Your task to perform on an android device: turn on data saver in the chrome app Image 0: 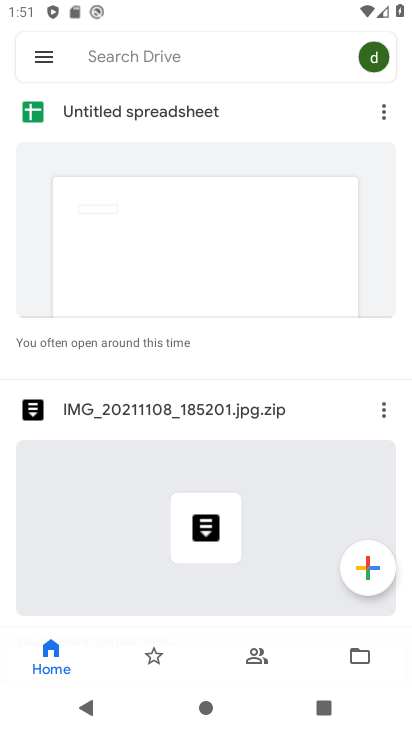
Step 0: press home button
Your task to perform on an android device: turn on data saver in the chrome app Image 1: 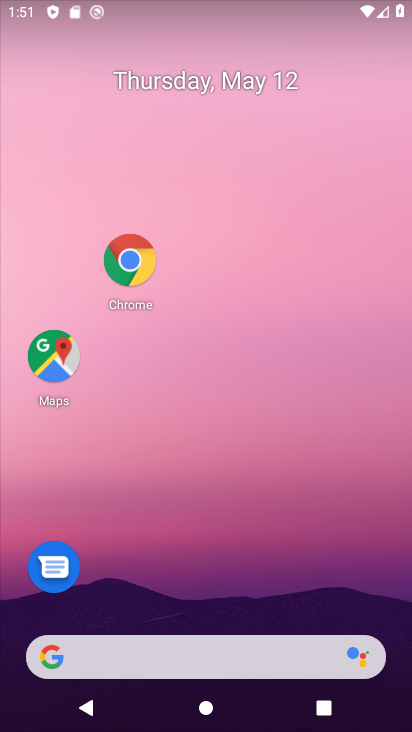
Step 1: drag from (131, 628) to (181, 233)
Your task to perform on an android device: turn on data saver in the chrome app Image 2: 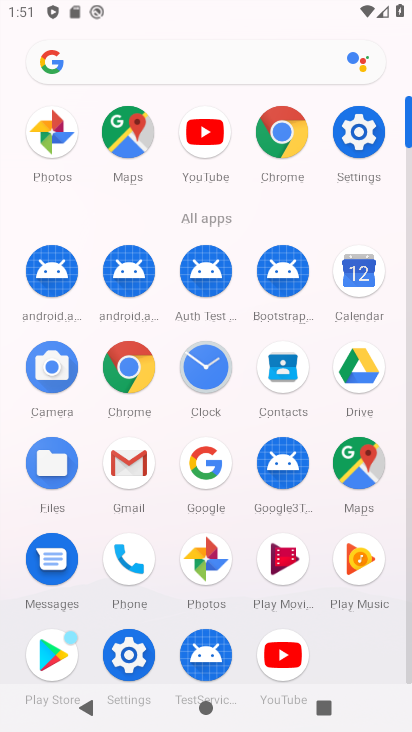
Step 2: click (206, 373)
Your task to perform on an android device: turn on data saver in the chrome app Image 3: 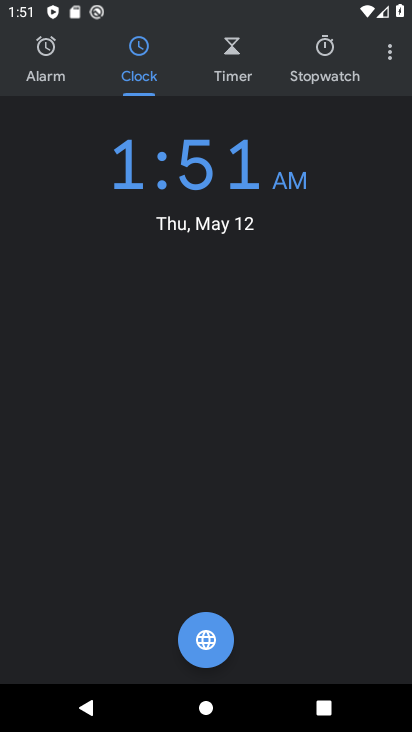
Step 3: click (322, 52)
Your task to perform on an android device: turn on data saver in the chrome app Image 4: 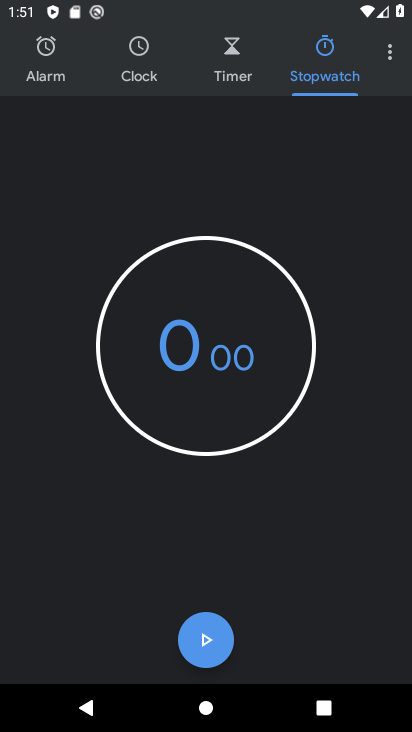
Step 4: click (178, 639)
Your task to perform on an android device: turn on data saver in the chrome app Image 5: 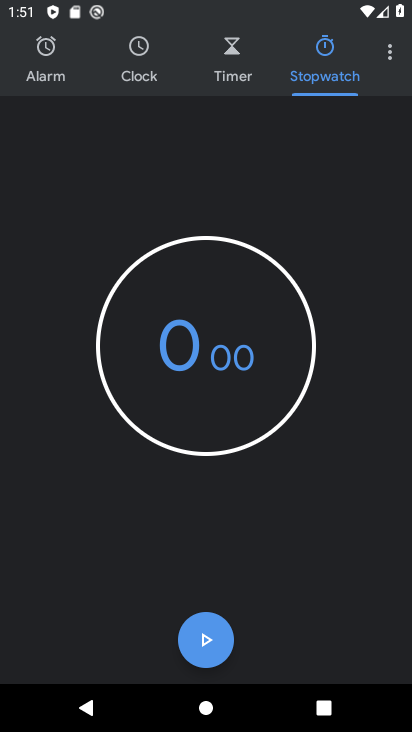
Step 5: click (214, 644)
Your task to perform on an android device: turn on data saver in the chrome app Image 6: 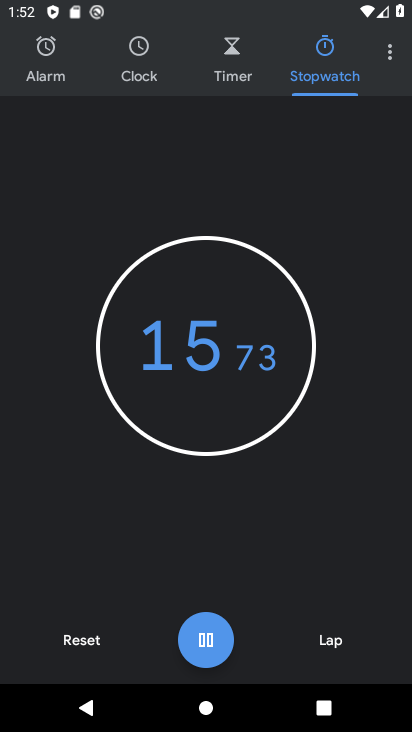
Step 6: click (195, 636)
Your task to perform on an android device: turn on data saver in the chrome app Image 7: 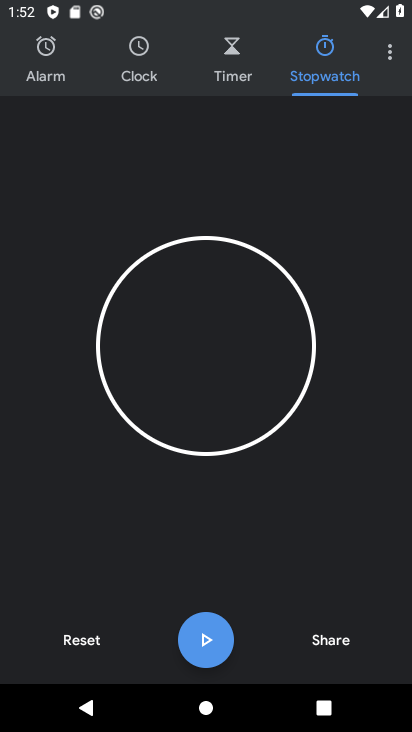
Step 7: task complete